Your task to perform on an android device: stop showing notifications on the lock screen Image 0: 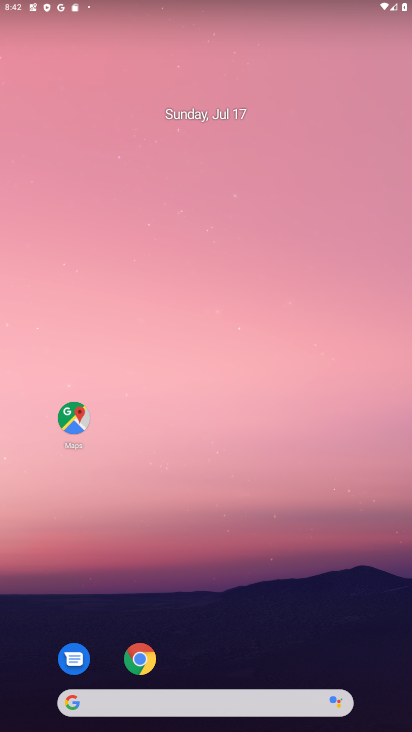
Step 0: press home button
Your task to perform on an android device: stop showing notifications on the lock screen Image 1: 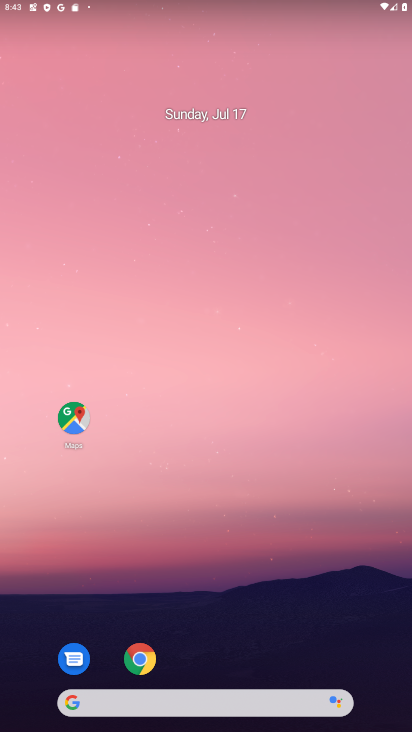
Step 1: drag from (258, 530) to (187, 168)
Your task to perform on an android device: stop showing notifications on the lock screen Image 2: 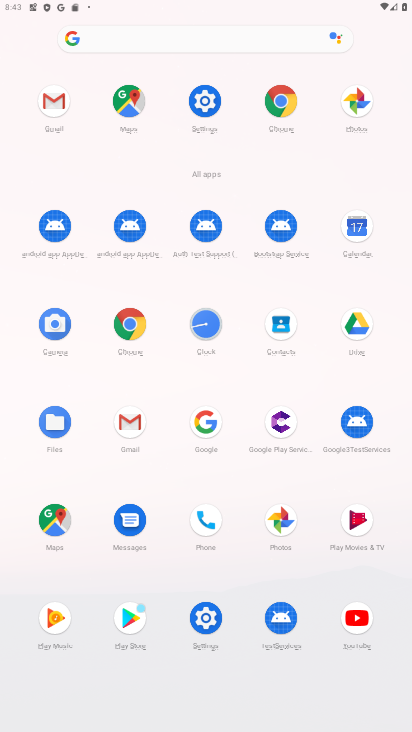
Step 2: click (207, 616)
Your task to perform on an android device: stop showing notifications on the lock screen Image 3: 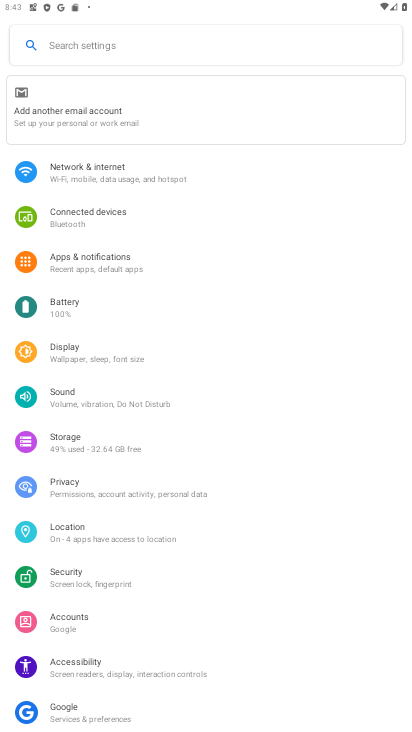
Step 3: click (55, 483)
Your task to perform on an android device: stop showing notifications on the lock screen Image 4: 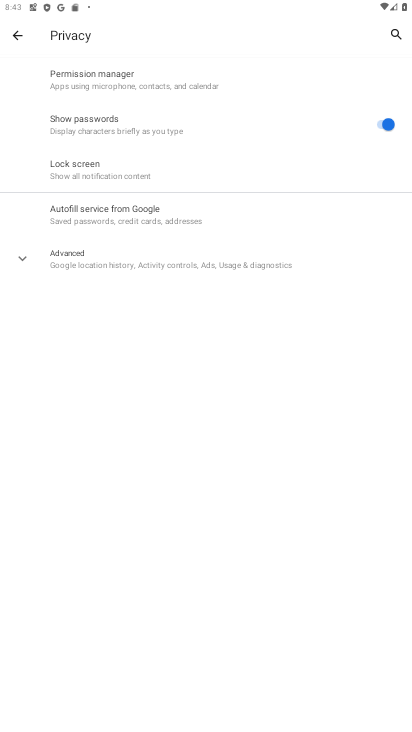
Step 4: click (102, 166)
Your task to perform on an android device: stop showing notifications on the lock screen Image 5: 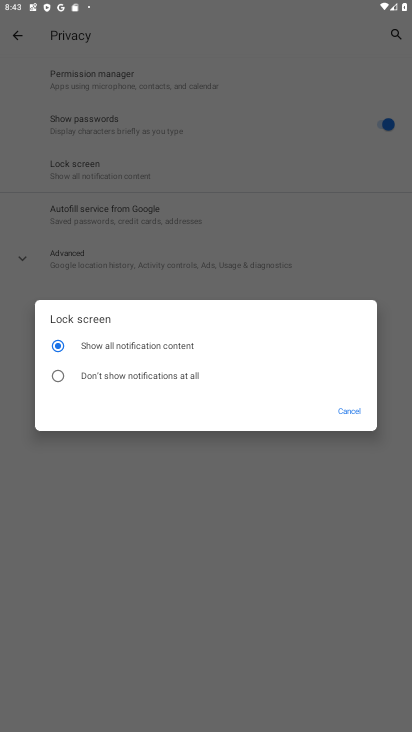
Step 5: click (147, 381)
Your task to perform on an android device: stop showing notifications on the lock screen Image 6: 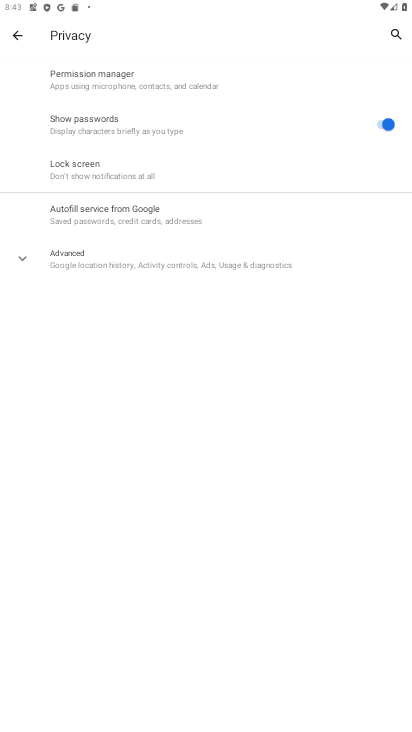
Step 6: task complete